Your task to perform on an android device: check android version Image 0: 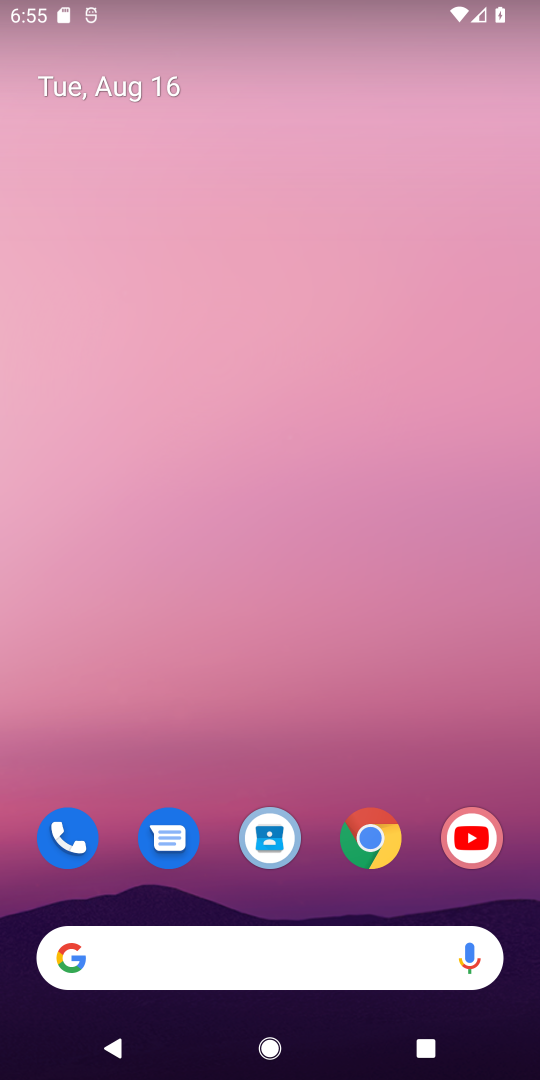
Step 0: press home button
Your task to perform on an android device: check android version Image 1: 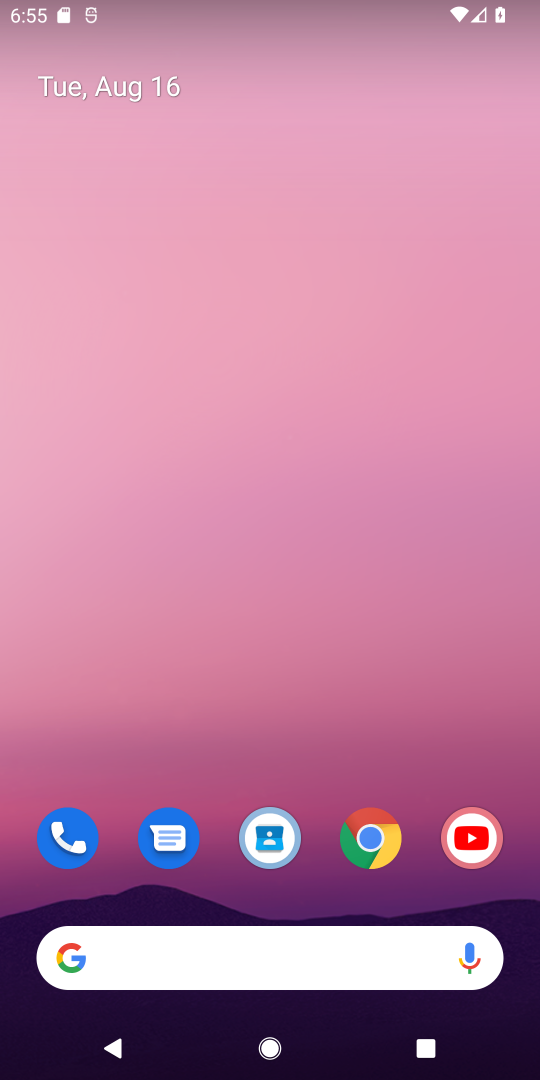
Step 1: drag from (323, 899) to (351, 108)
Your task to perform on an android device: check android version Image 2: 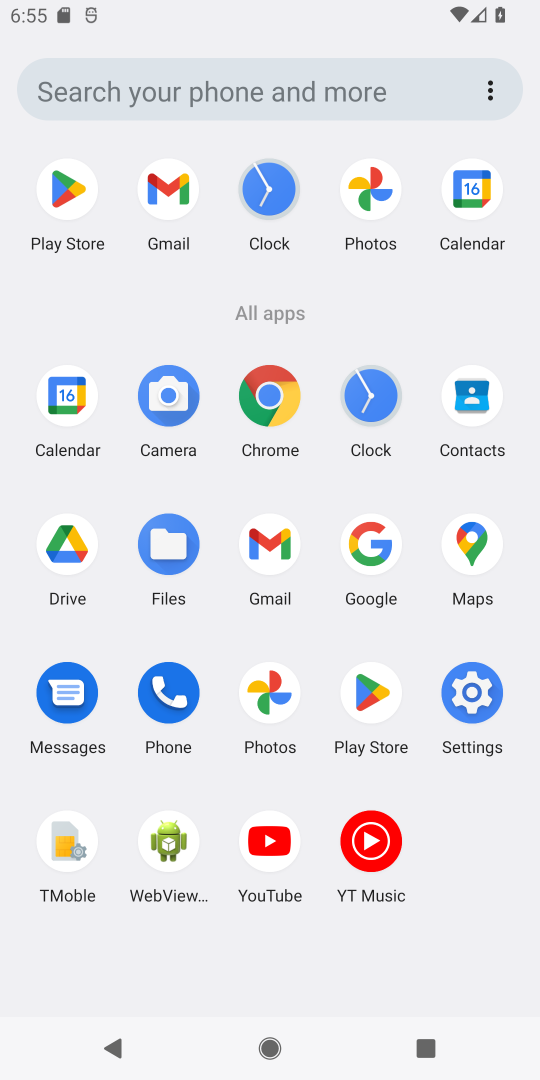
Step 2: click (465, 682)
Your task to perform on an android device: check android version Image 3: 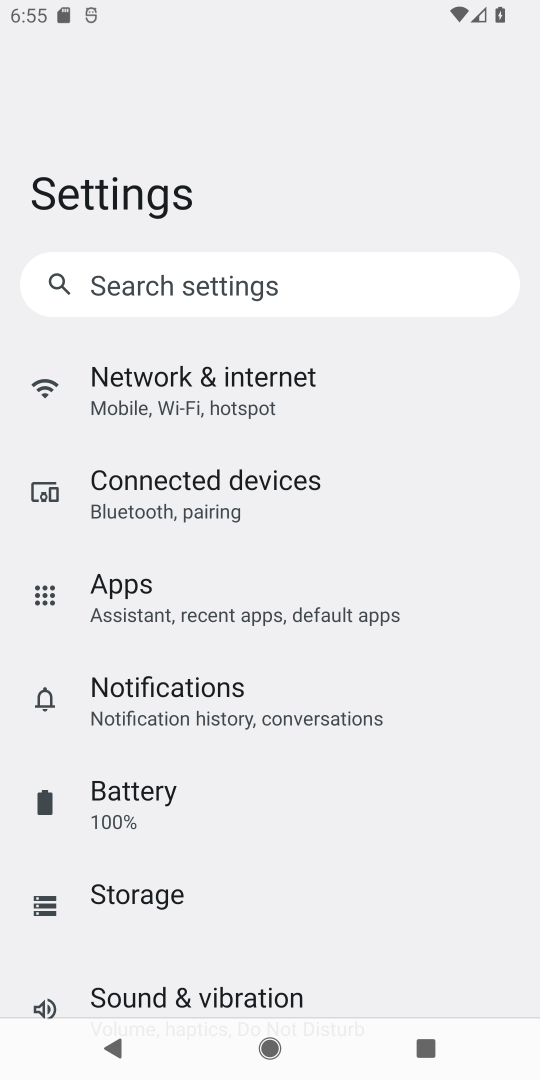
Step 3: drag from (324, 977) to (351, 96)
Your task to perform on an android device: check android version Image 4: 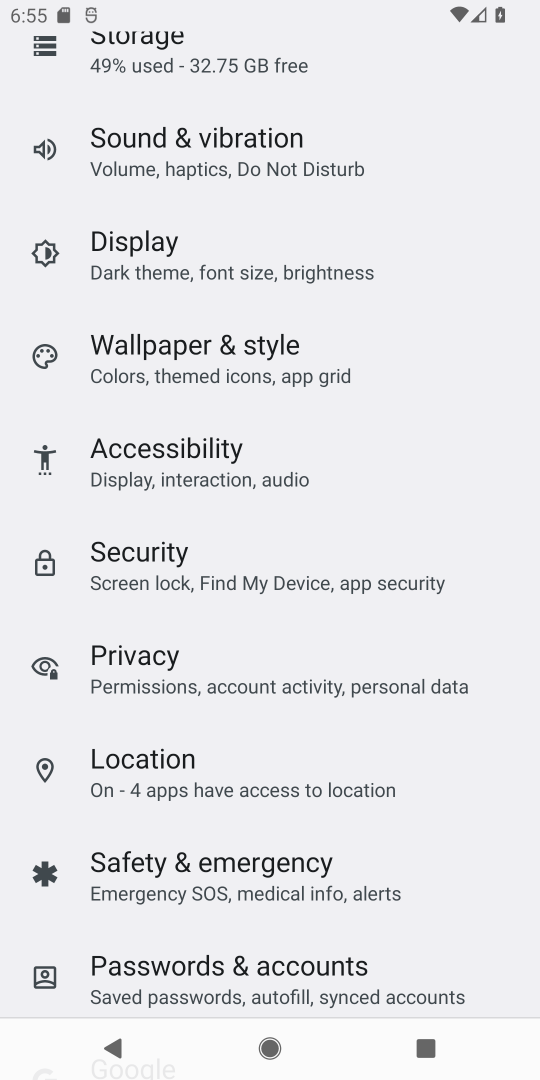
Step 4: drag from (300, 958) to (370, 39)
Your task to perform on an android device: check android version Image 5: 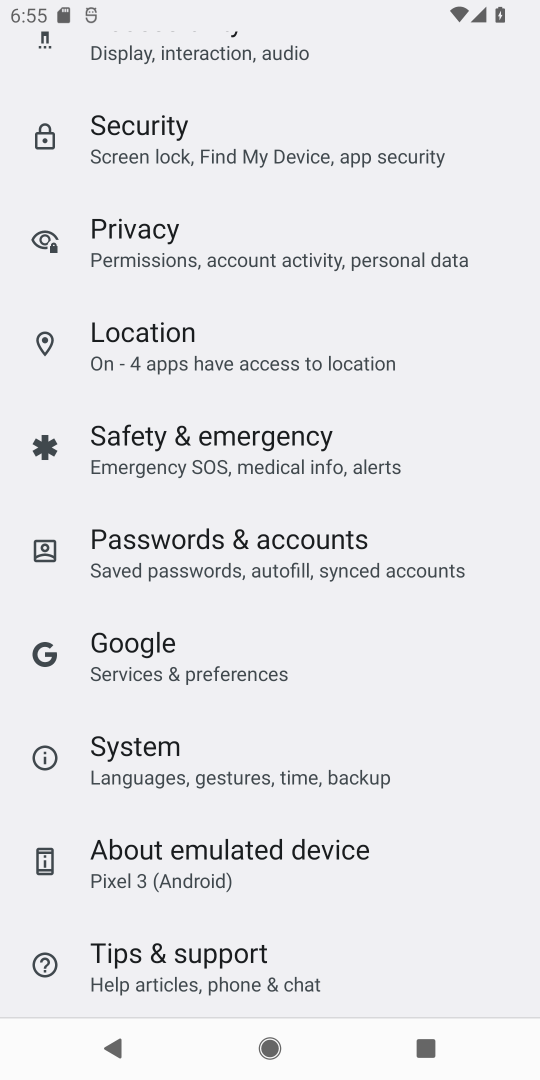
Step 5: click (385, 848)
Your task to perform on an android device: check android version Image 6: 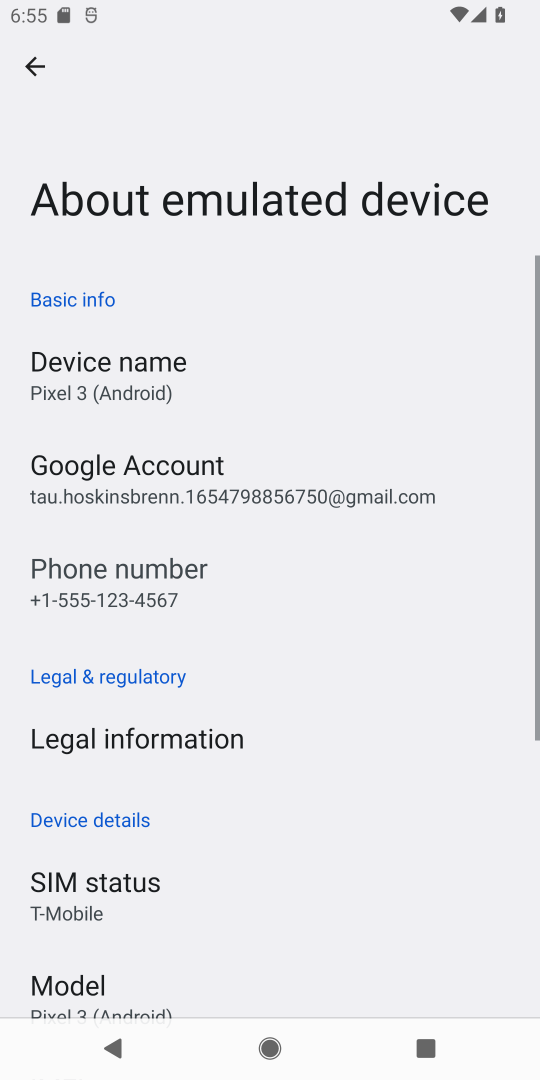
Step 6: drag from (289, 932) to (346, 265)
Your task to perform on an android device: check android version Image 7: 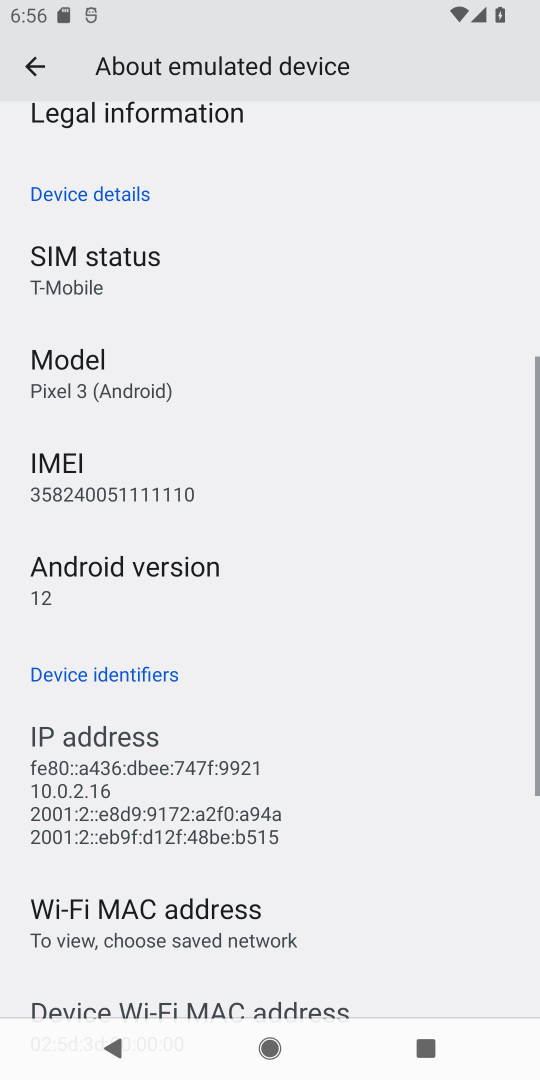
Step 7: click (130, 573)
Your task to perform on an android device: check android version Image 8: 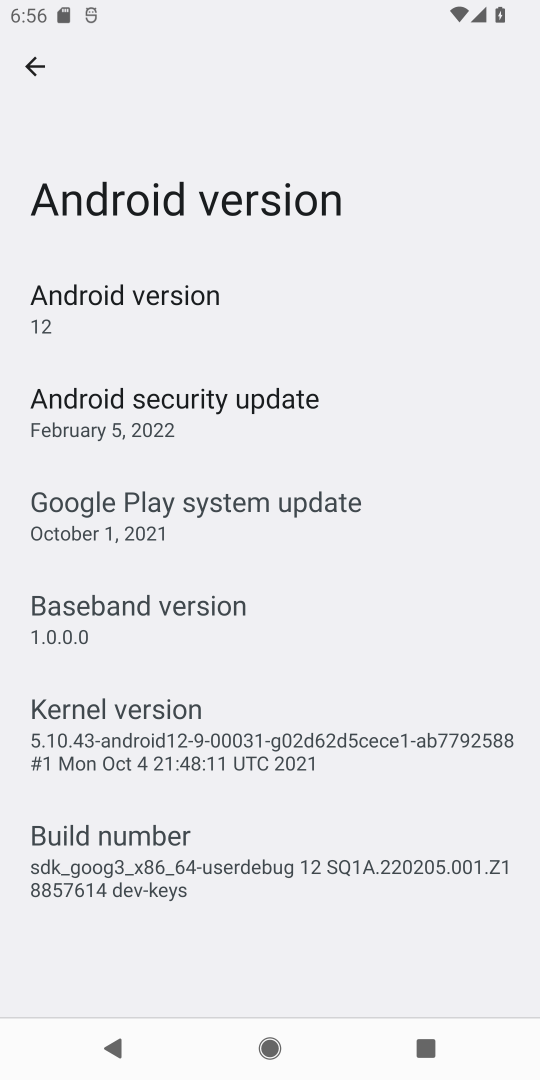
Step 8: task complete